Your task to perform on an android device: What's on my calendar tomorrow? Image 0: 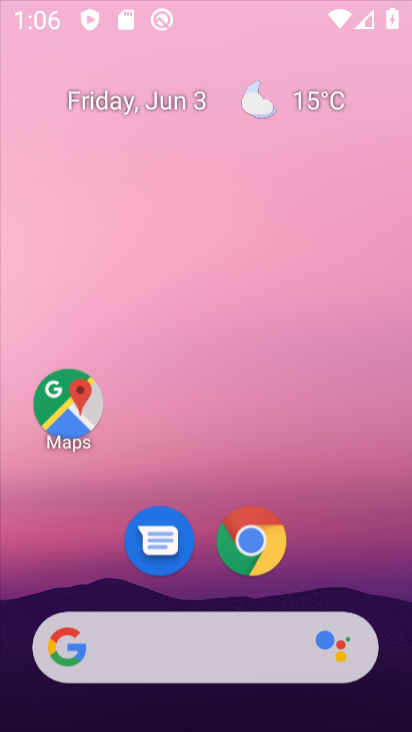
Step 0: press home button
Your task to perform on an android device: What's on my calendar tomorrow? Image 1: 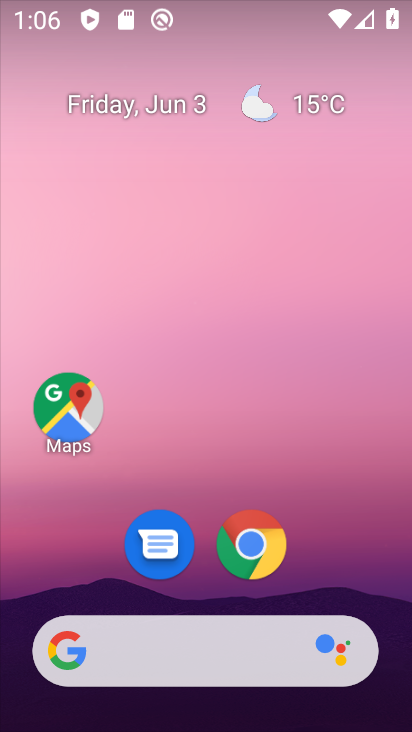
Step 1: drag from (211, 601) to (192, 33)
Your task to perform on an android device: What's on my calendar tomorrow? Image 2: 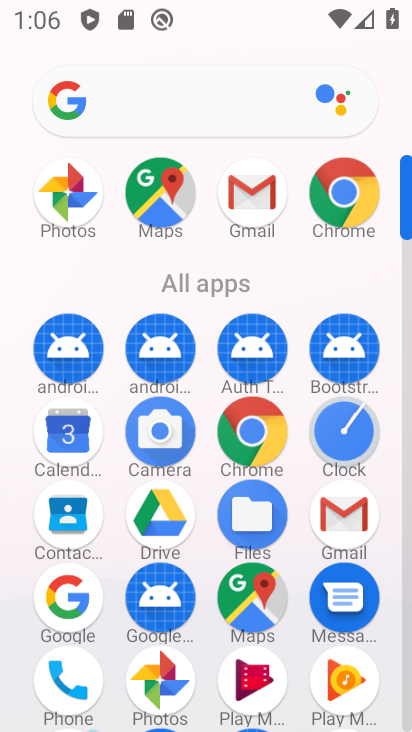
Step 2: click (56, 449)
Your task to perform on an android device: What's on my calendar tomorrow? Image 3: 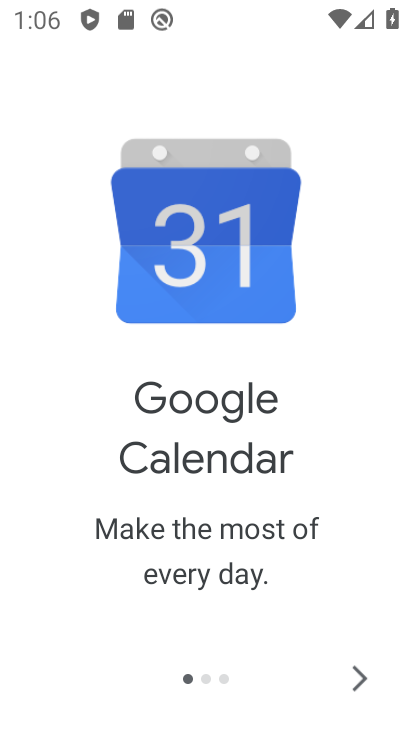
Step 3: click (344, 668)
Your task to perform on an android device: What's on my calendar tomorrow? Image 4: 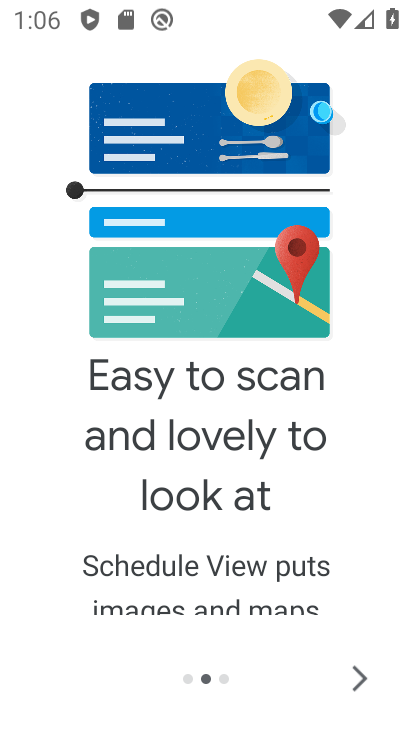
Step 4: click (350, 667)
Your task to perform on an android device: What's on my calendar tomorrow? Image 5: 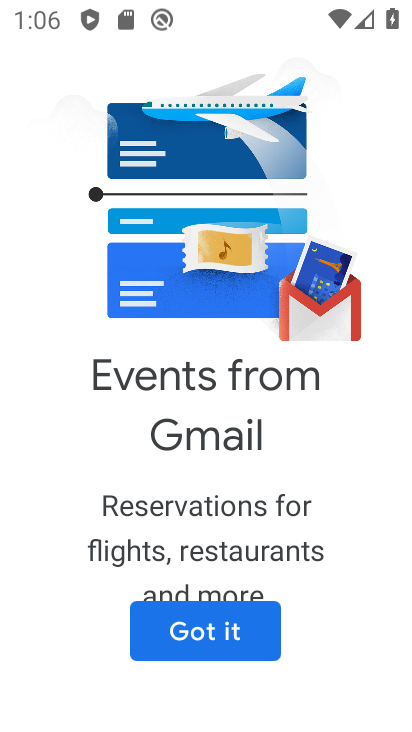
Step 5: click (211, 635)
Your task to perform on an android device: What's on my calendar tomorrow? Image 6: 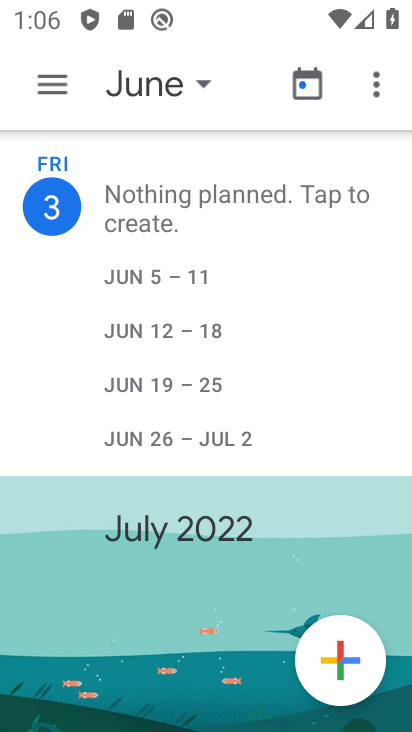
Step 6: click (50, 83)
Your task to perform on an android device: What's on my calendar tomorrow? Image 7: 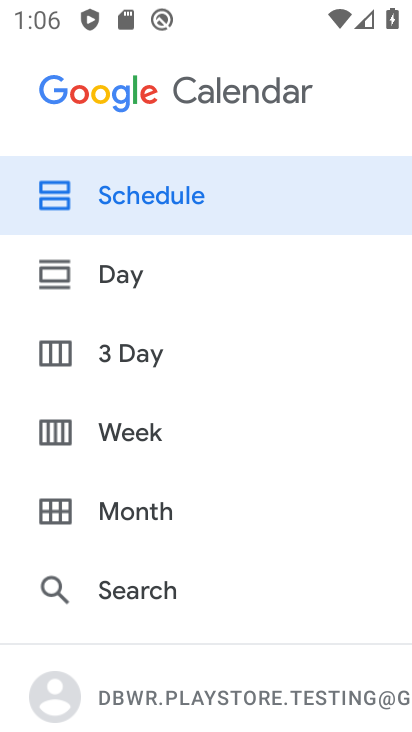
Step 7: click (121, 362)
Your task to perform on an android device: What's on my calendar tomorrow? Image 8: 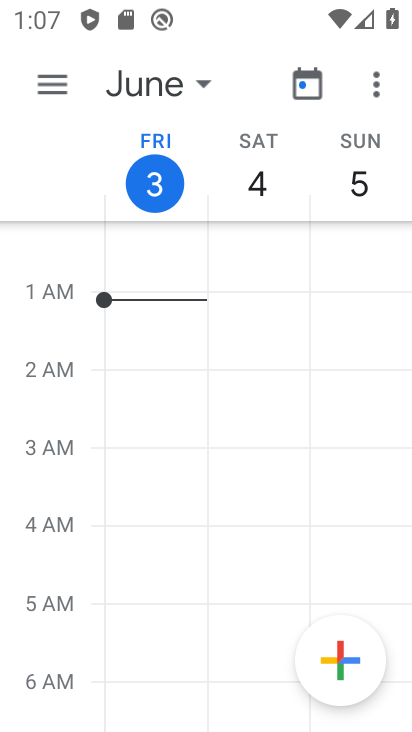
Step 8: click (259, 180)
Your task to perform on an android device: What's on my calendar tomorrow? Image 9: 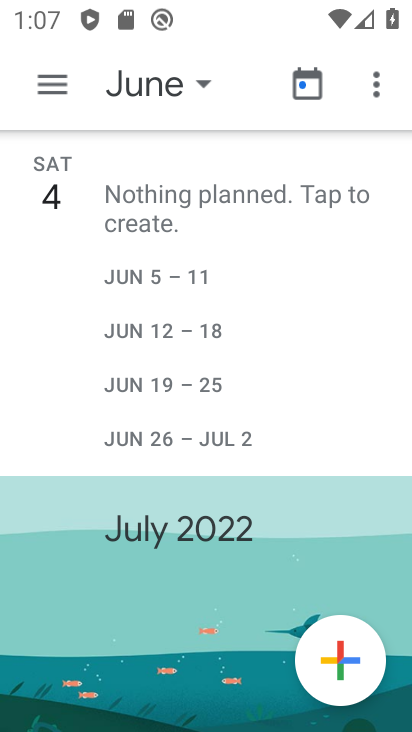
Step 9: task complete